Your task to perform on an android device: Go to CNN.com Image 0: 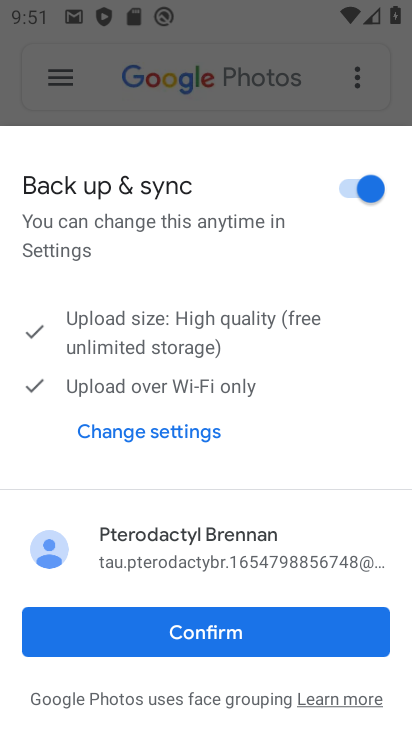
Step 0: press home button
Your task to perform on an android device: Go to CNN.com Image 1: 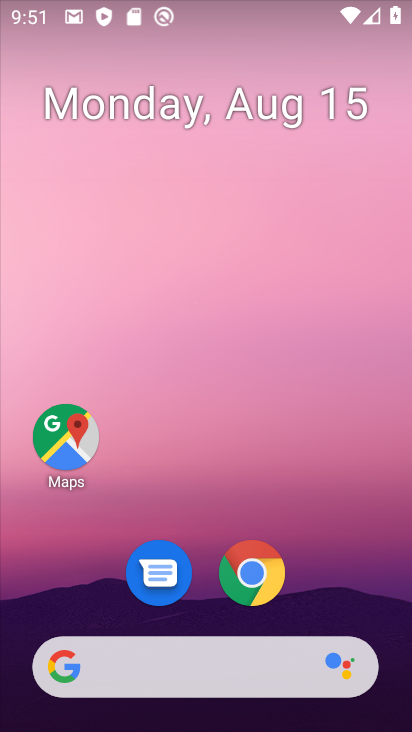
Step 1: click (256, 565)
Your task to perform on an android device: Go to CNN.com Image 2: 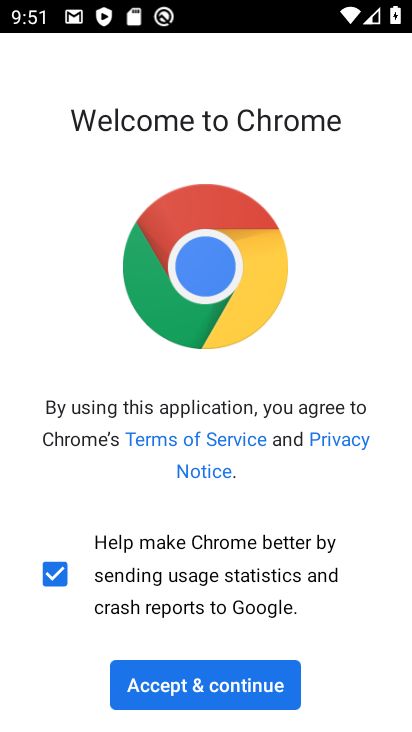
Step 2: click (223, 678)
Your task to perform on an android device: Go to CNN.com Image 3: 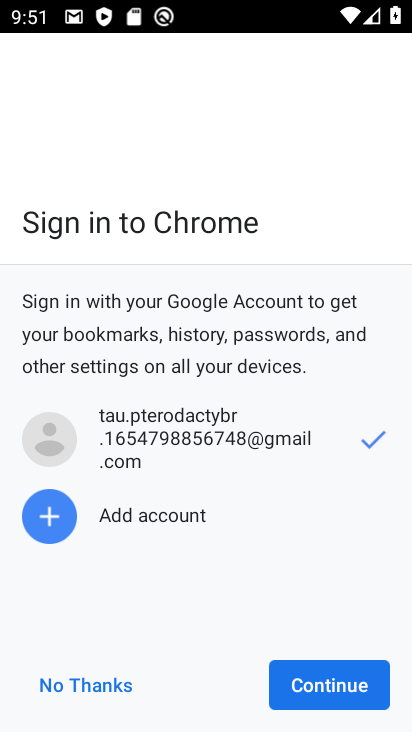
Step 3: click (330, 687)
Your task to perform on an android device: Go to CNN.com Image 4: 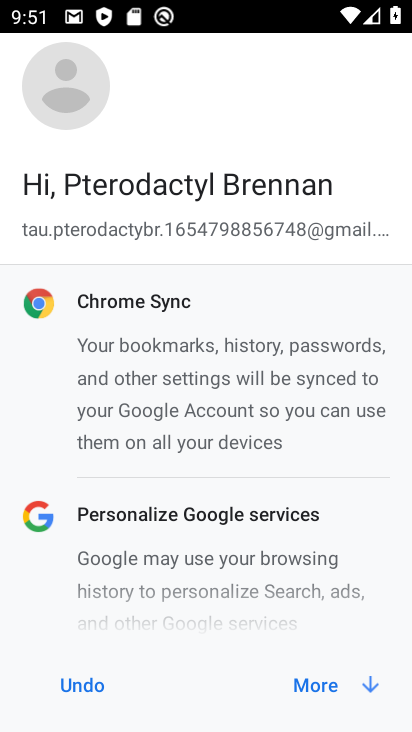
Step 4: click (358, 670)
Your task to perform on an android device: Go to CNN.com Image 5: 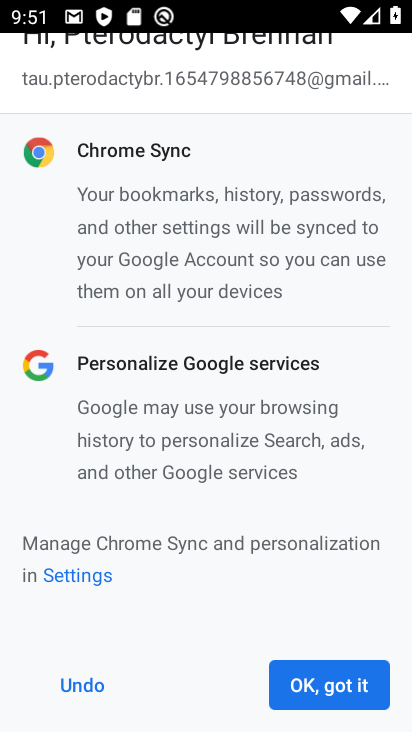
Step 5: click (332, 692)
Your task to perform on an android device: Go to CNN.com Image 6: 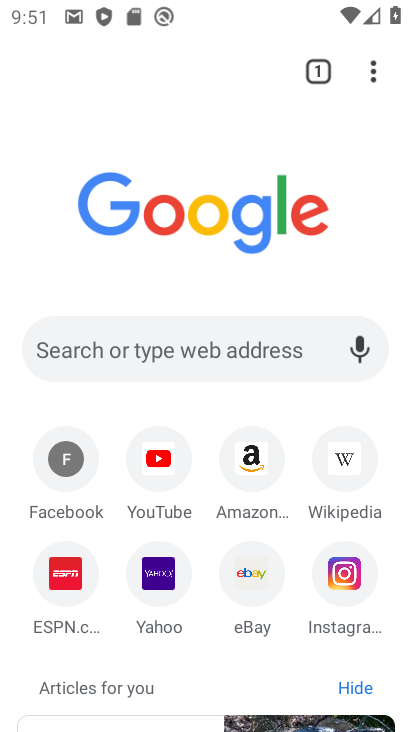
Step 6: click (163, 343)
Your task to perform on an android device: Go to CNN.com Image 7: 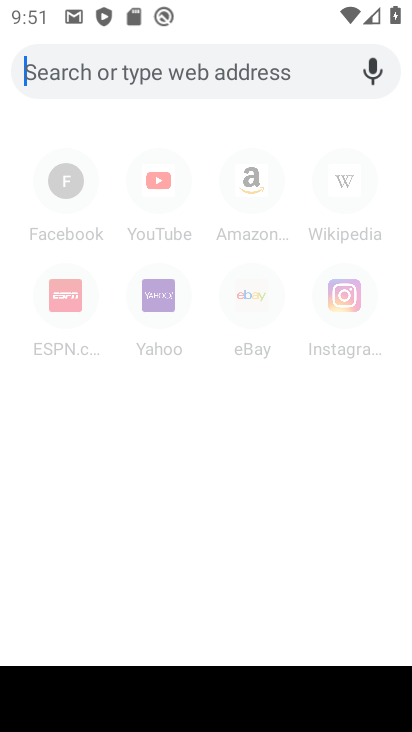
Step 7: type "cnn.com"
Your task to perform on an android device: Go to CNN.com Image 8: 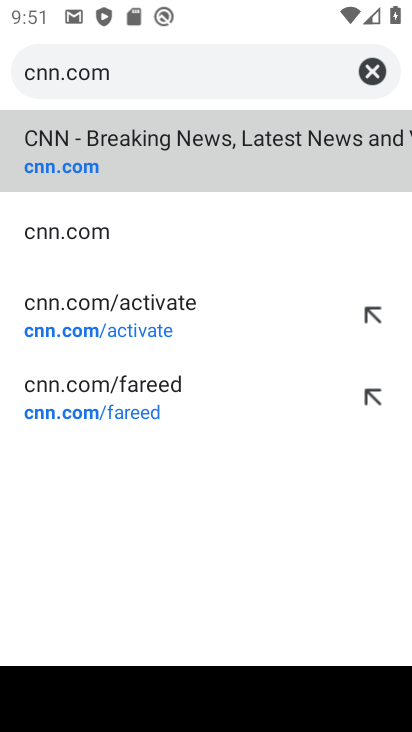
Step 8: click (65, 151)
Your task to perform on an android device: Go to CNN.com Image 9: 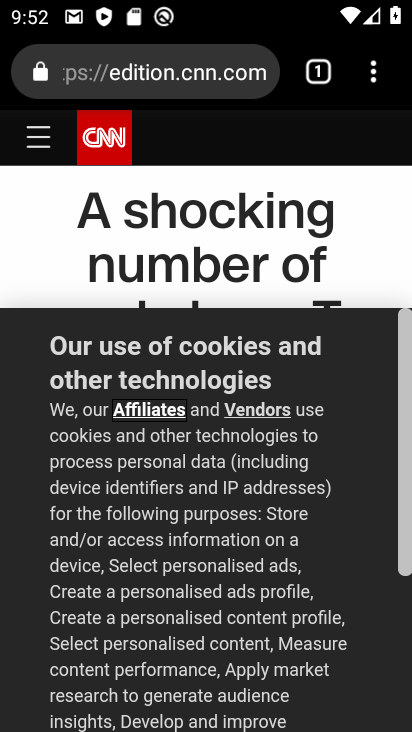
Step 9: task complete